Your task to perform on an android device: turn vacation reply on in the gmail app Image 0: 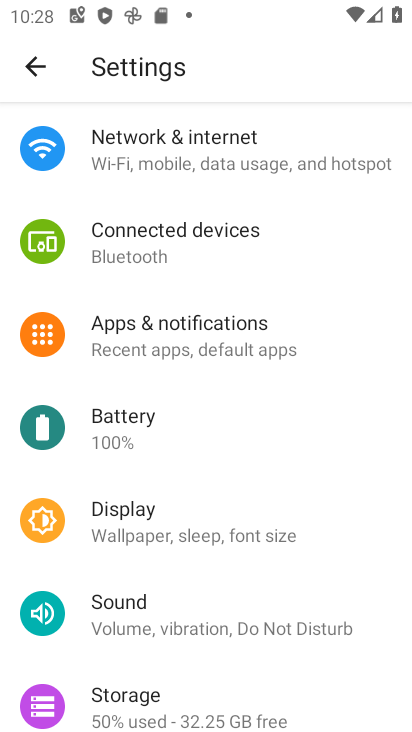
Step 0: press home button
Your task to perform on an android device: turn vacation reply on in the gmail app Image 1: 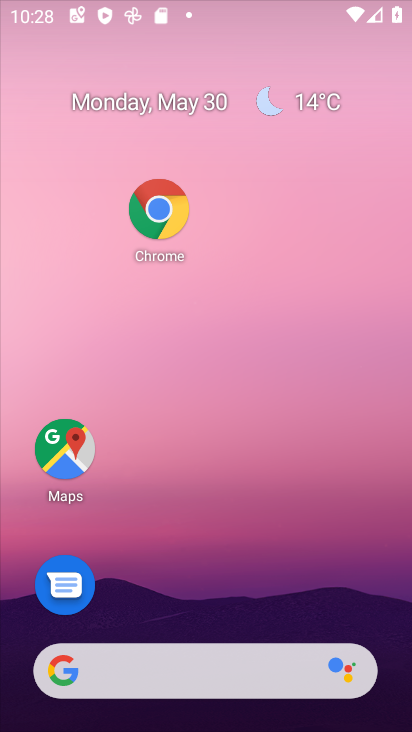
Step 1: drag from (271, 552) to (392, 61)
Your task to perform on an android device: turn vacation reply on in the gmail app Image 2: 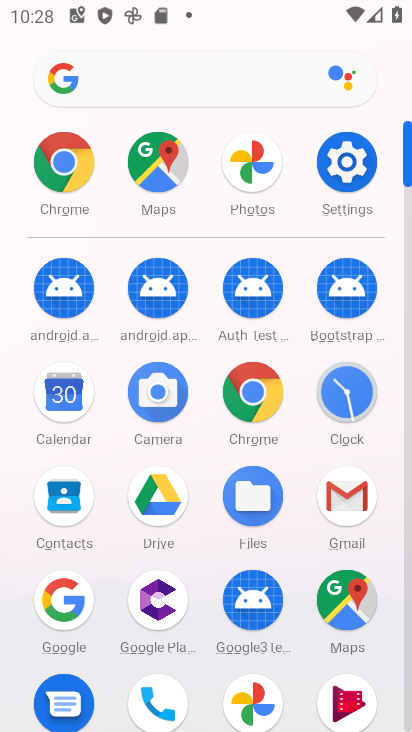
Step 2: click (354, 492)
Your task to perform on an android device: turn vacation reply on in the gmail app Image 3: 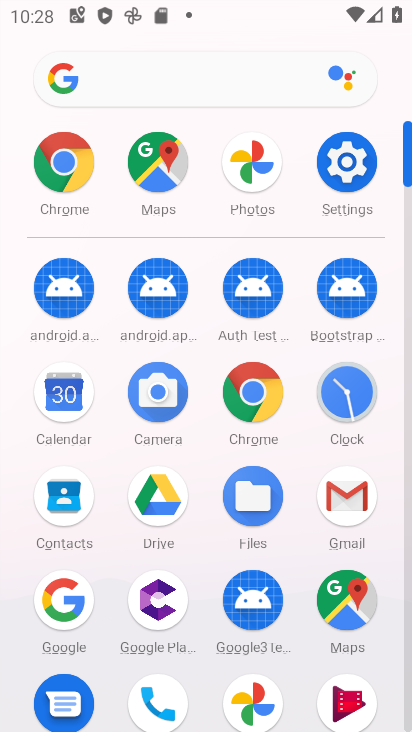
Step 3: click (354, 492)
Your task to perform on an android device: turn vacation reply on in the gmail app Image 4: 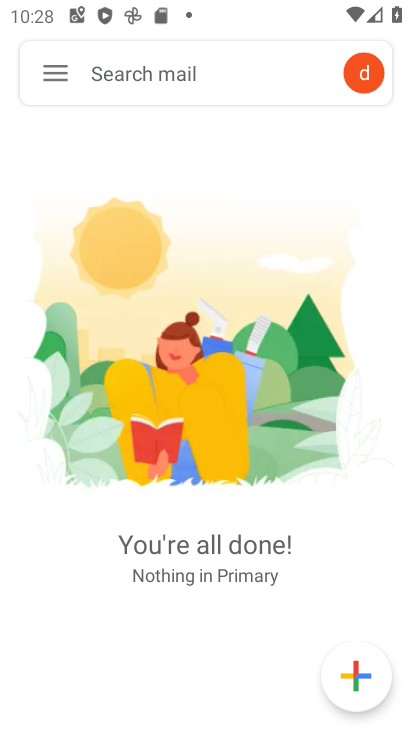
Step 4: click (50, 77)
Your task to perform on an android device: turn vacation reply on in the gmail app Image 5: 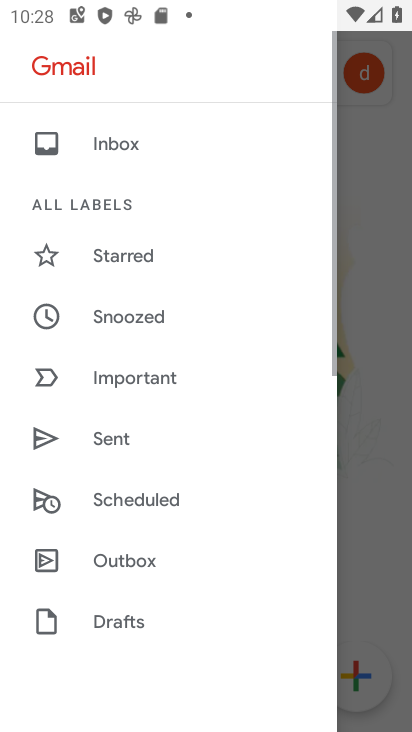
Step 5: drag from (142, 571) to (279, 8)
Your task to perform on an android device: turn vacation reply on in the gmail app Image 6: 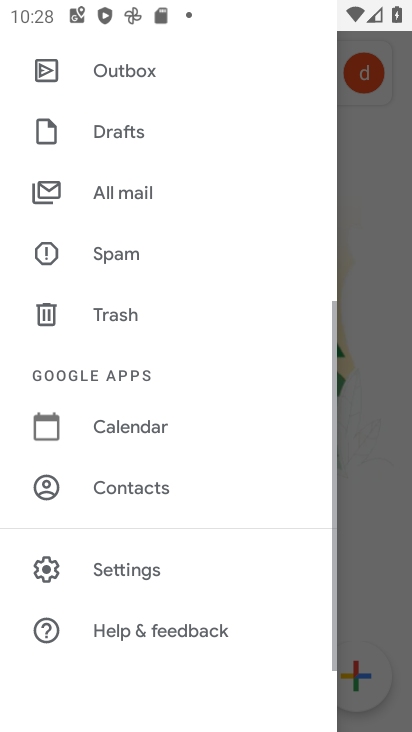
Step 6: click (117, 584)
Your task to perform on an android device: turn vacation reply on in the gmail app Image 7: 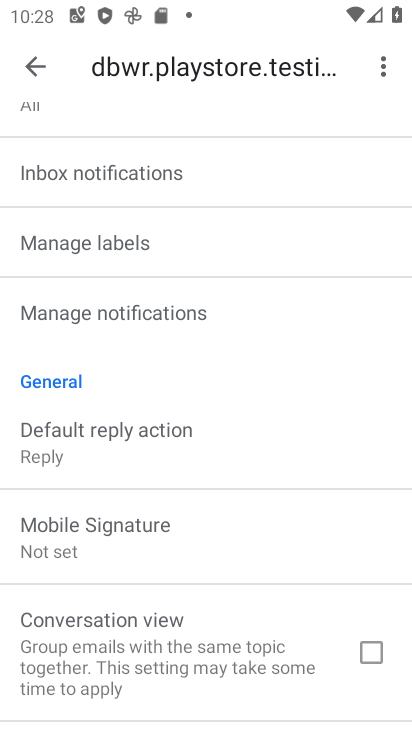
Step 7: drag from (165, 604) to (302, 113)
Your task to perform on an android device: turn vacation reply on in the gmail app Image 8: 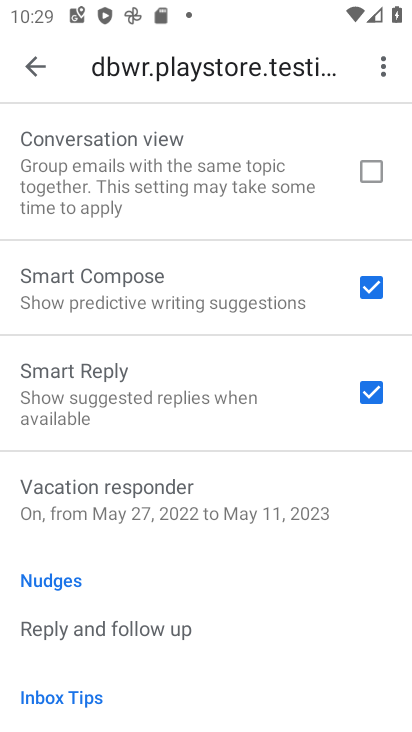
Step 8: click (157, 510)
Your task to perform on an android device: turn vacation reply on in the gmail app Image 9: 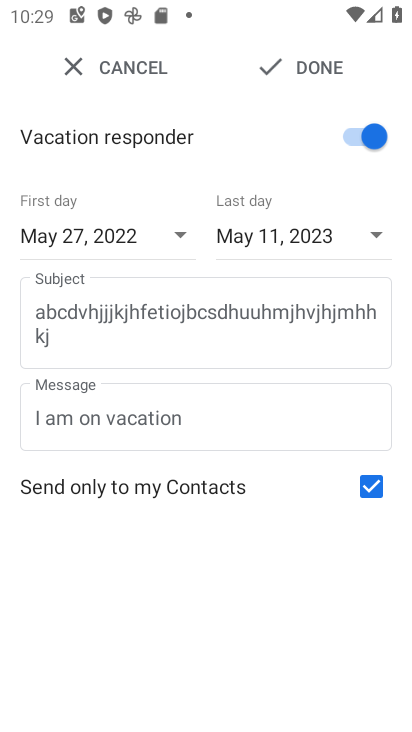
Step 9: click (310, 64)
Your task to perform on an android device: turn vacation reply on in the gmail app Image 10: 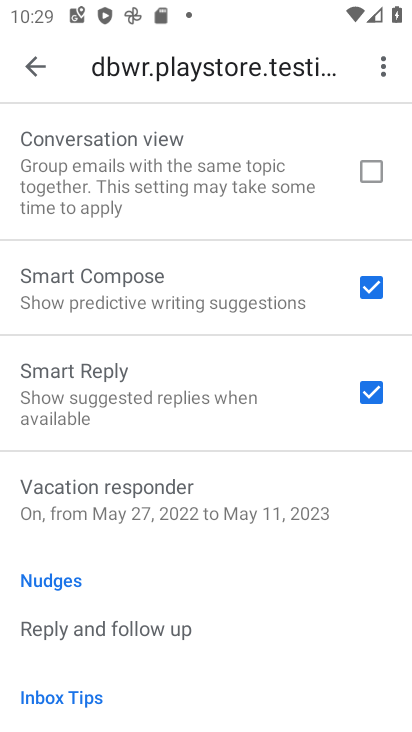
Step 10: task complete